Your task to perform on an android device: Open the calendar and show me this week's events? Image 0: 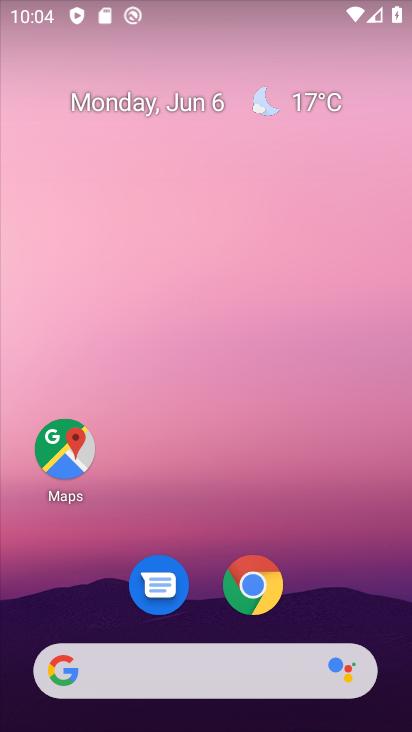
Step 0: drag from (218, 480) to (200, 0)
Your task to perform on an android device: Open the calendar and show me this week's events? Image 1: 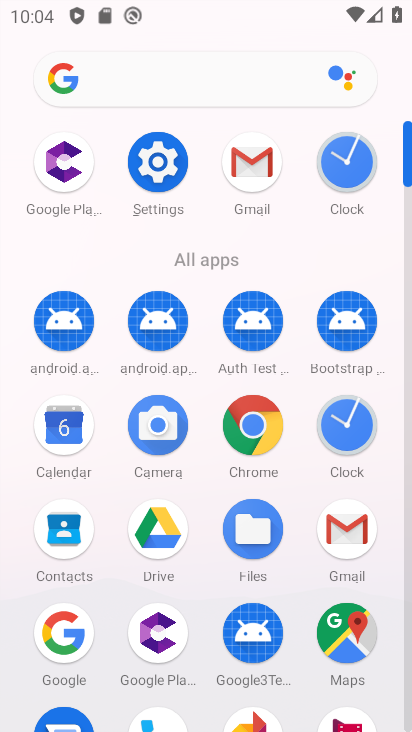
Step 1: click (73, 416)
Your task to perform on an android device: Open the calendar and show me this week's events? Image 2: 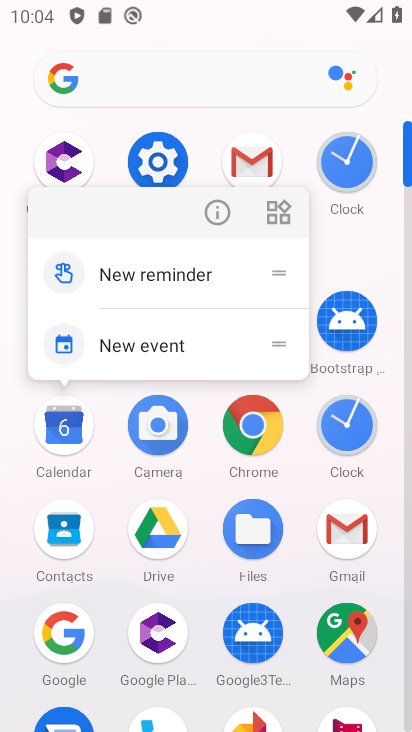
Step 2: click (63, 426)
Your task to perform on an android device: Open the calendar and show me this week's events? Image 3: 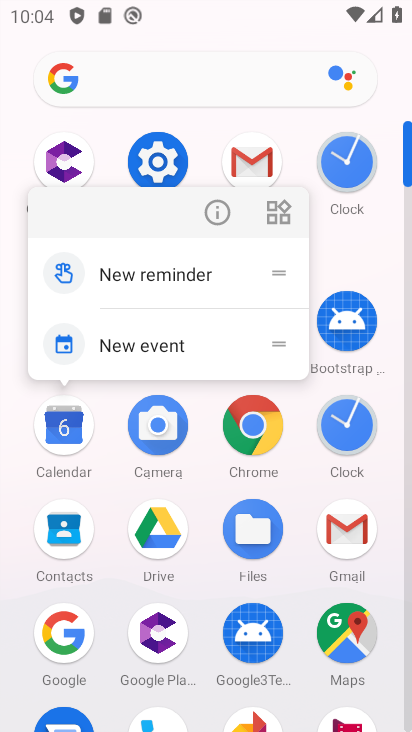
Step 3: click (63, 426)
Your task to perform on an android device: Open the calendar and show me this week's events? Image 4: 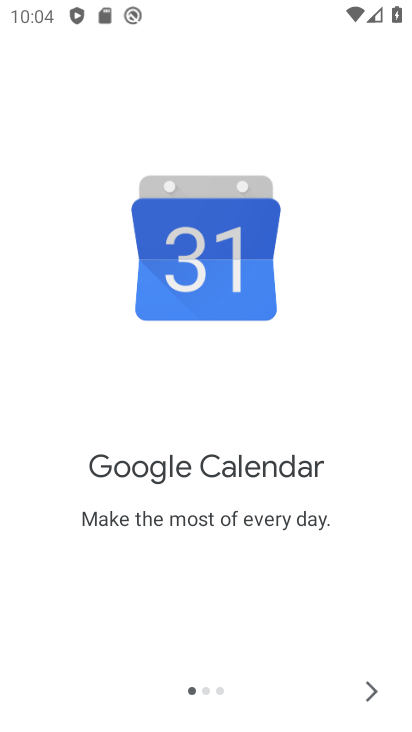
Step 4: click (365, 680)
Your task to perform on an android device: Open the calendar and show me this week's events? Image 5: 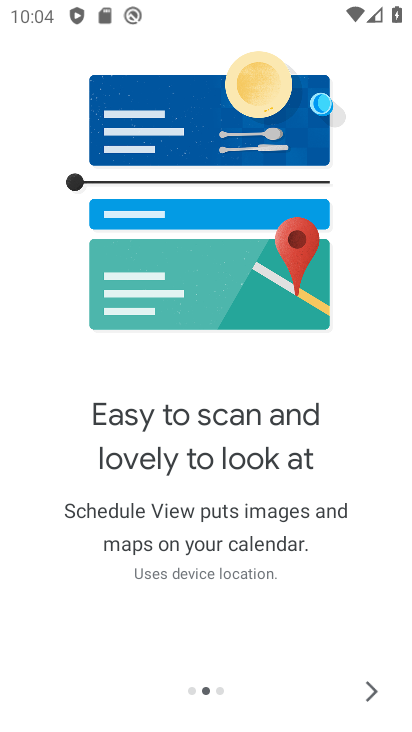
Step 5: click (370, 690)
Your task to perform on an android device: Open the calendar and show me this week's events? Image 6: 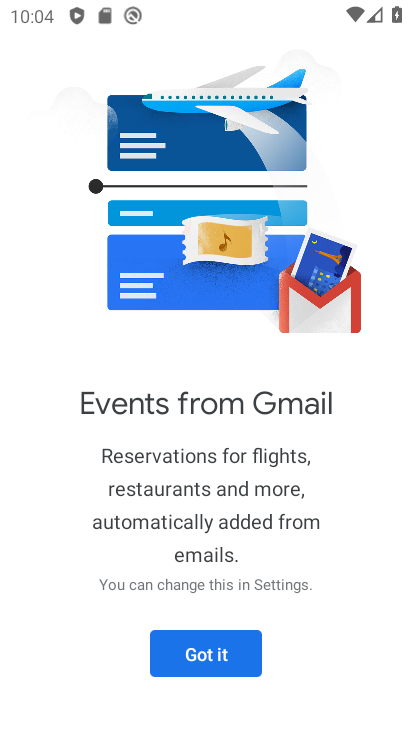
Step 6: click (235, 649)
Your task to perform on an android device: Open the calendar and show me this week's events? Image 7: 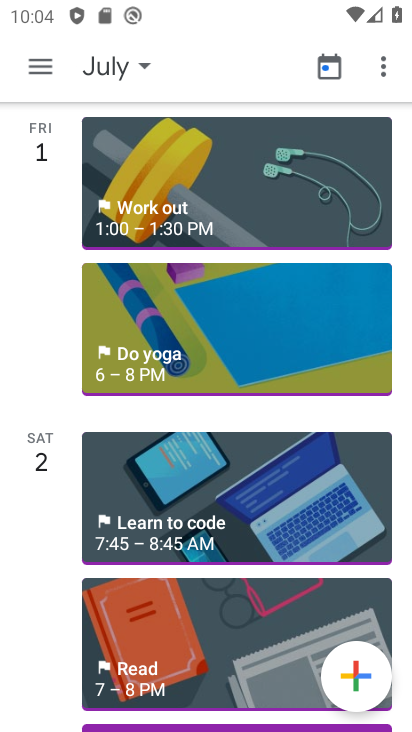
Step 7: click (44, 67)
Your task to perform on an android device: Open the calendar and show me this week's events? Image 8: 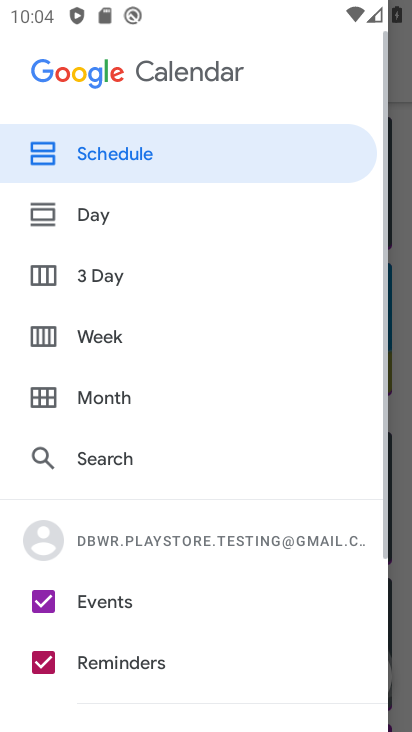
Step 8: click (78, 325)
Your task to perform on an android device: Open the calendar and show me this week's events? Image 9: 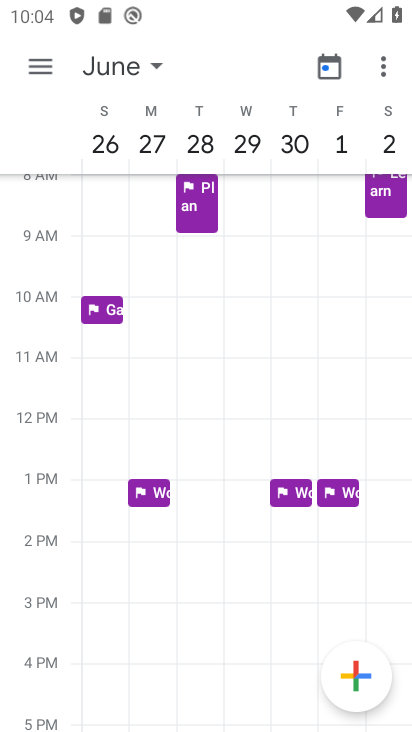
Step 9: task complete